Your task to perform on an android device: Show me the alarms in the clock app Image 0: 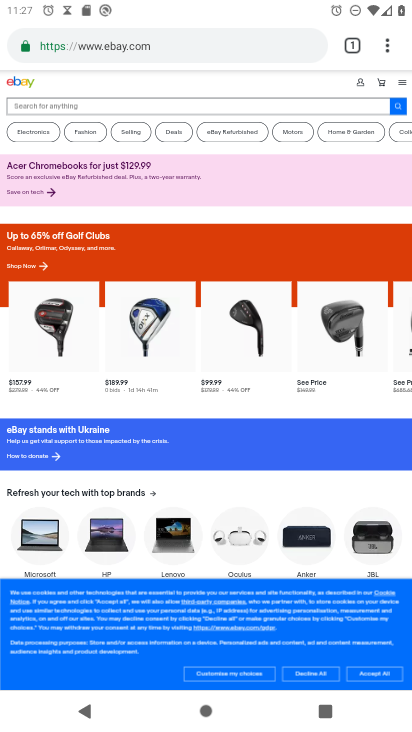
Step 0: press home button
Your task to perform on an android device: Show me the alarms in the clock app Image 1: 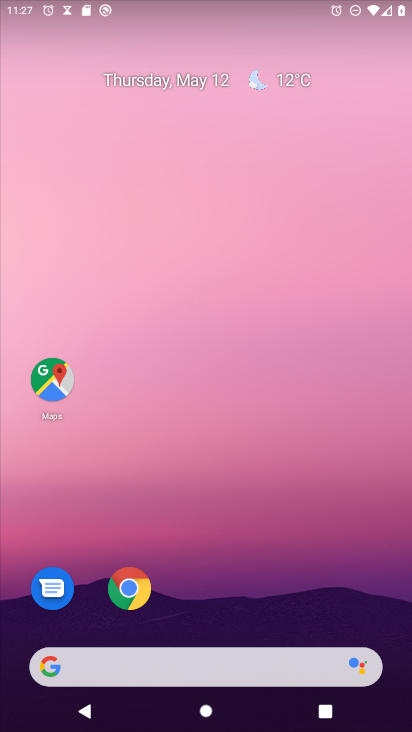
Step 1: drag from (218, 586) to (161, 155)
Your task to perform on an android device: Show me the alarms in the clock app Image 2: 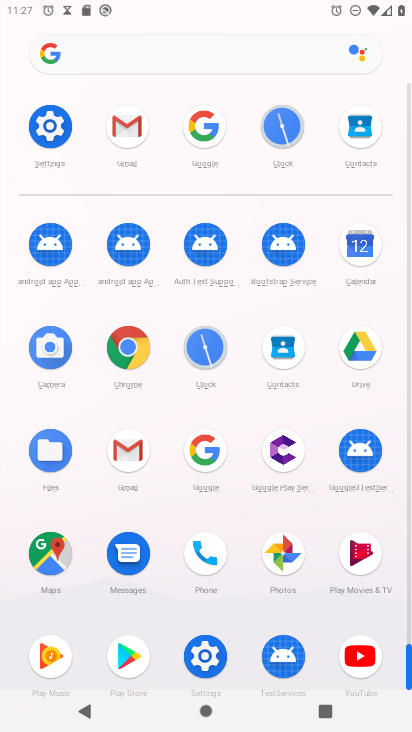
Step 2: click (205, 345)
Your task to perform on an android device: Show me the alarms in the clock app Image 3: 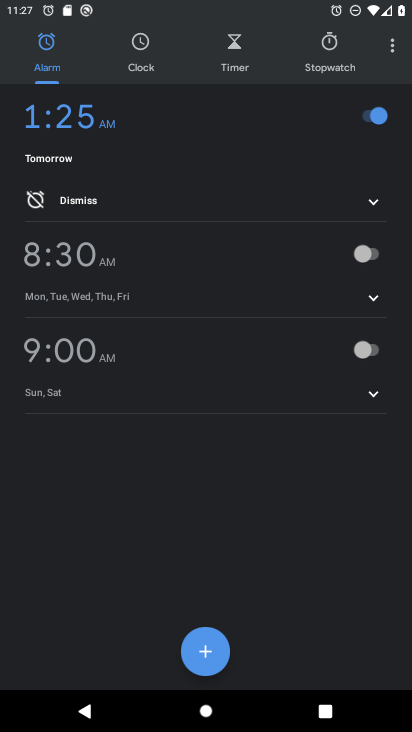
Step 3: task complete